Your task to perform on an android device: check data usage Image 0: 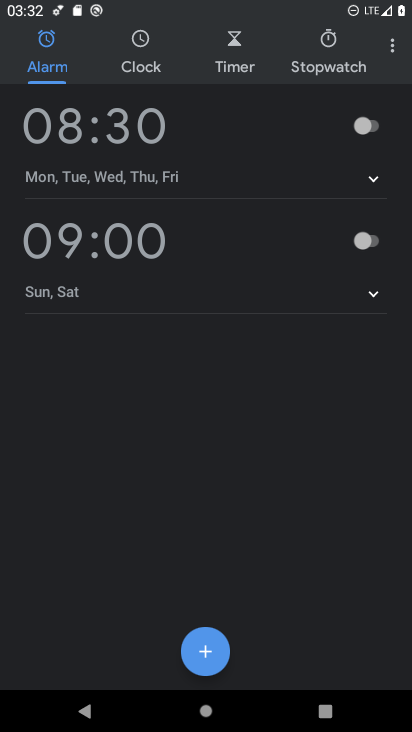
Step 0: press home button
Your task to perform on an android device: check data usage Image 1: 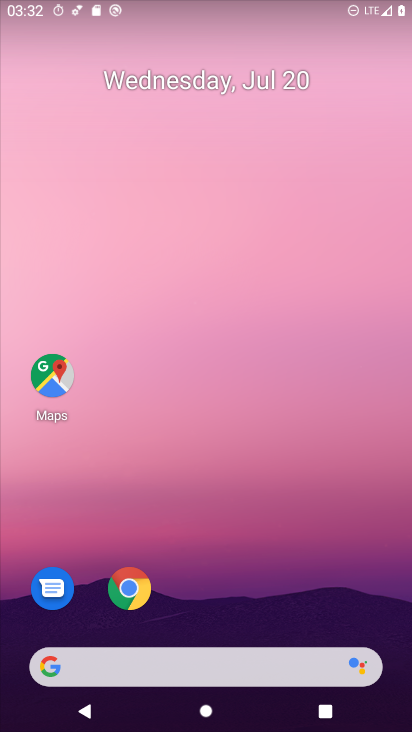
Step 1: drag from (210, 626) to (124, 26)
Your task to perform on an android device: check data usage Image 2: 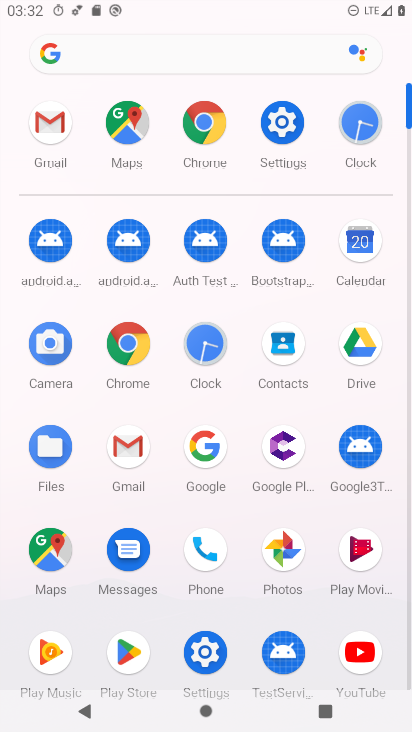
Step 2: click (272, 122)
Your task to perform on an android device: check data usage Image 3: 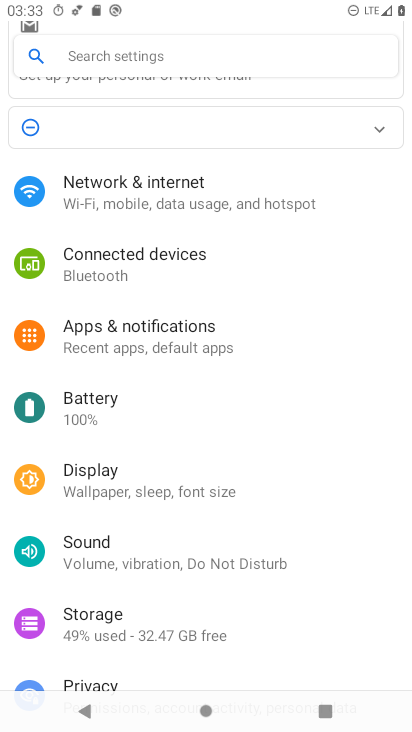
Step 3: click (172, 178)
Your task to perform on an android device: check data usage Image 4: 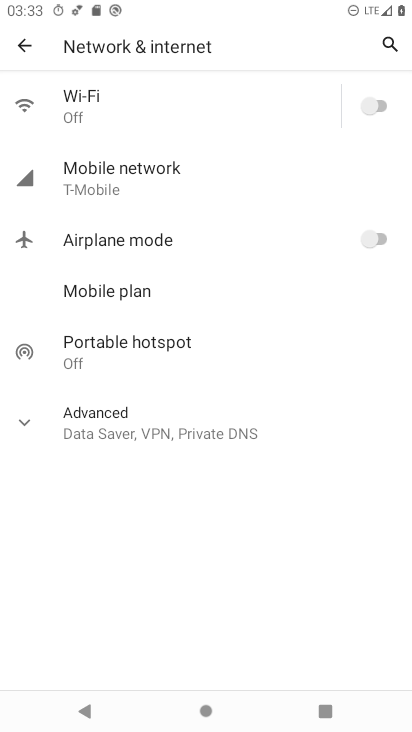
Step 4: click (172, 178)
Your task to perform on an android device: check data usage Image 5: 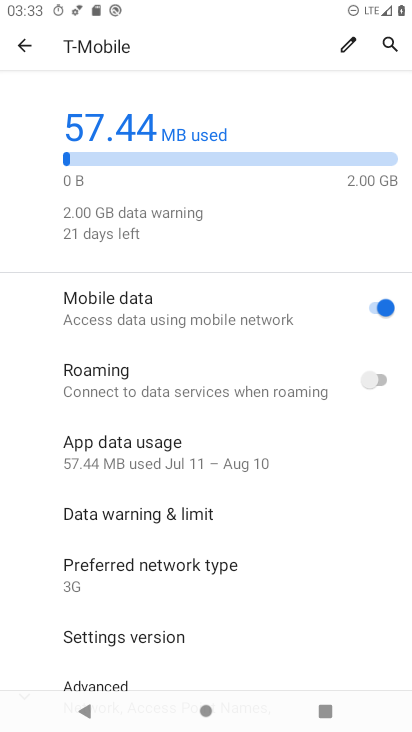
Step 5: task complete